Your task to perform on an android device: Do I have any events this weekend? Image 0: 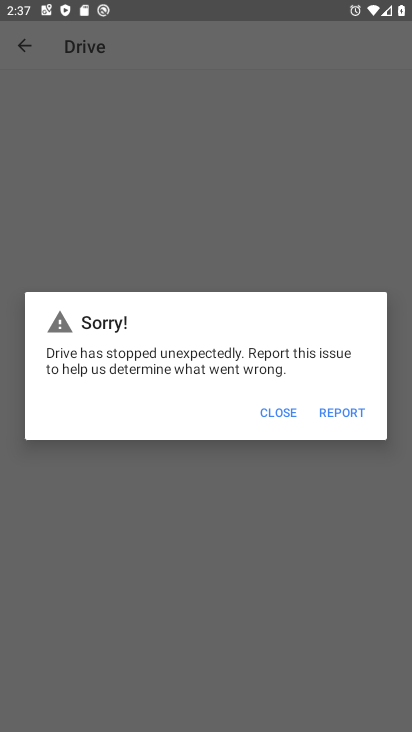
Step 0: press back button
Your task to perform on an android device: Do I have any events this weekend? Image 1: 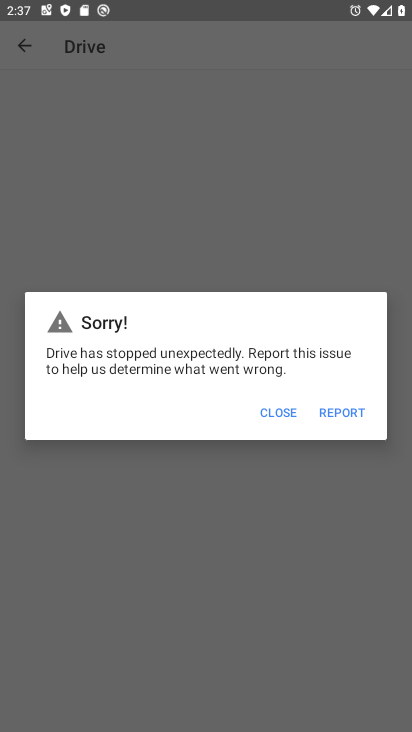
Step 1: press back button
Your task to perform on an android device: Do I have any events this weekend? Image 2: 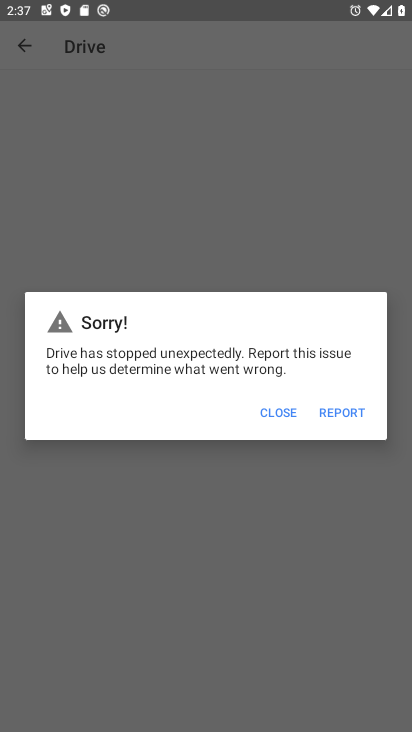
Step 2: click (261, 414)
Your task to perform on an android device: Do I have any events this weekend? Image 3: 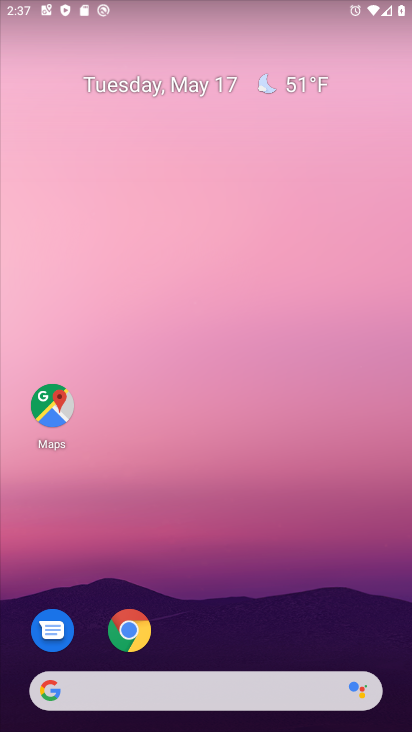
Step 3: drag from (227, 643) to (293, 91)
Your task to perform on an android device: Do I have any events this weekend? Image 4: 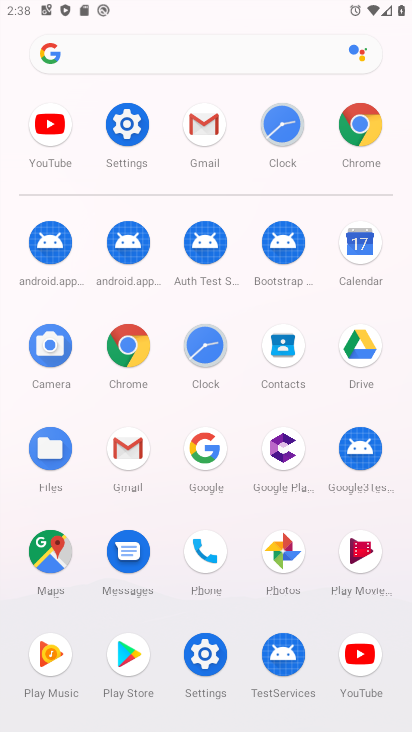
Step 4: click (348, 251)
Your task to perform on an android device: Do I have any events this weekend? Image 5: 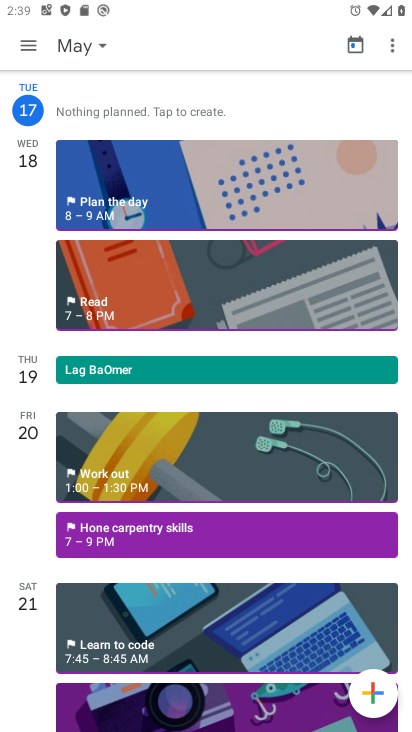
Step 5: drag from (170, 602) to (246, 131)
Your task to perform on an android device: Do I have any events this weekend? Image 6: 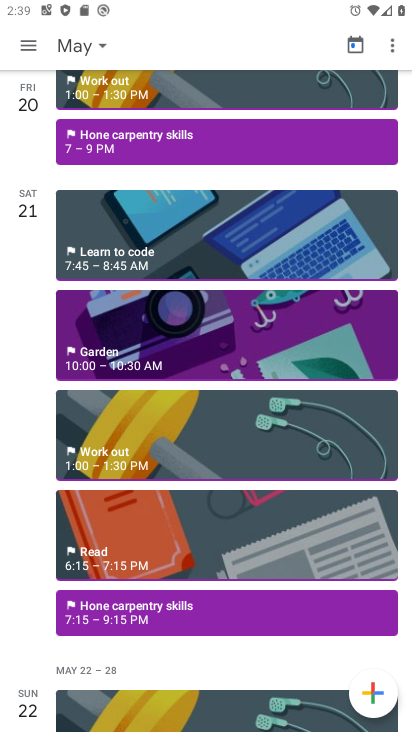
Step 6: drag from (202, 570) to (249, 236)
Your task to perform on an android device: Do I have any events this weekend? Image 7: 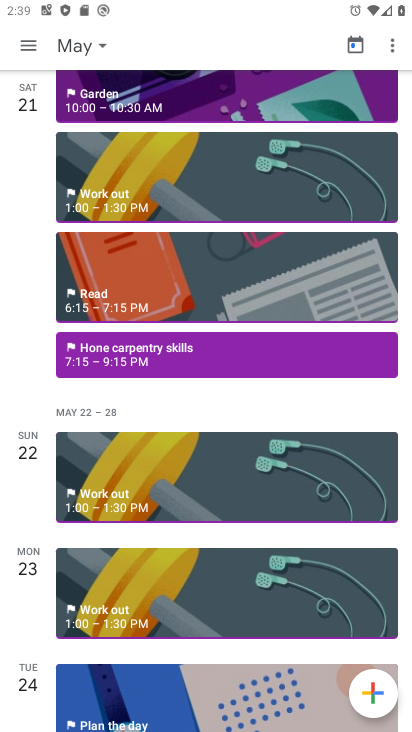
Step 7: click (127, 479)
Your task to perform on an android device: Do I have any events this weekend? Image 8: 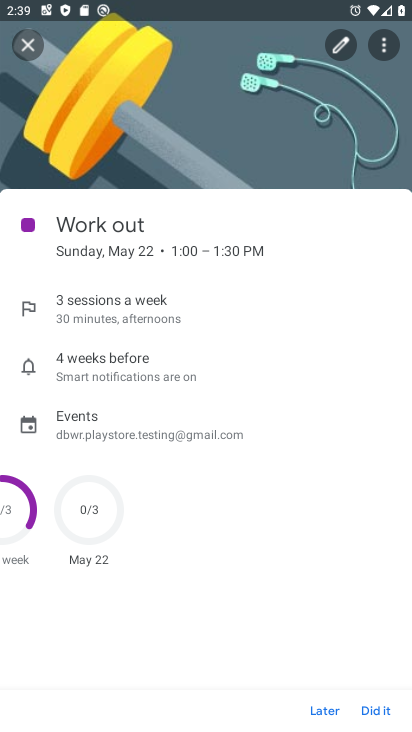
Step 8: task complete